Your task to perform on an android device: Search for vegetarian restaurants on Maps Image 0: 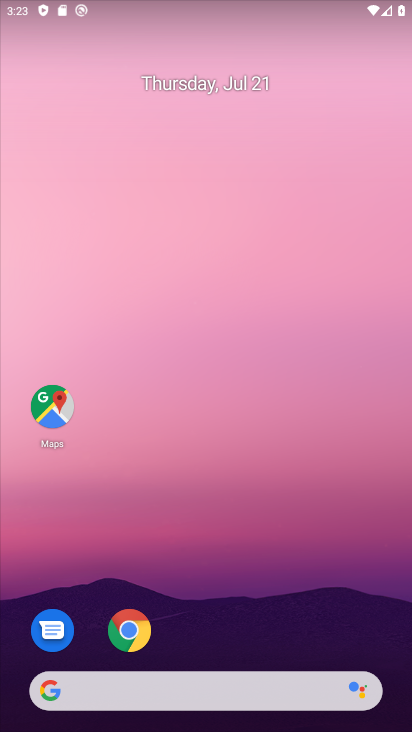
Step 0: click (45, 389)
Your task to perform on an android device: Search for vegetarian restaurants on Maps Image 1: 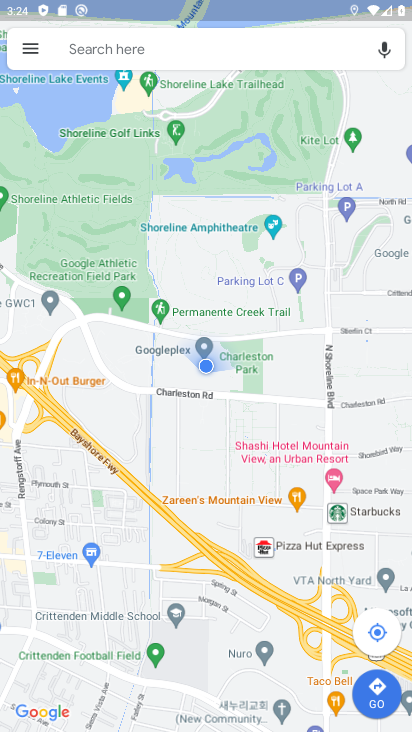
Step 1: click (227, 61)
Your task to perform on an android device: Search for vegetarian restaurants on Maps Image 2: 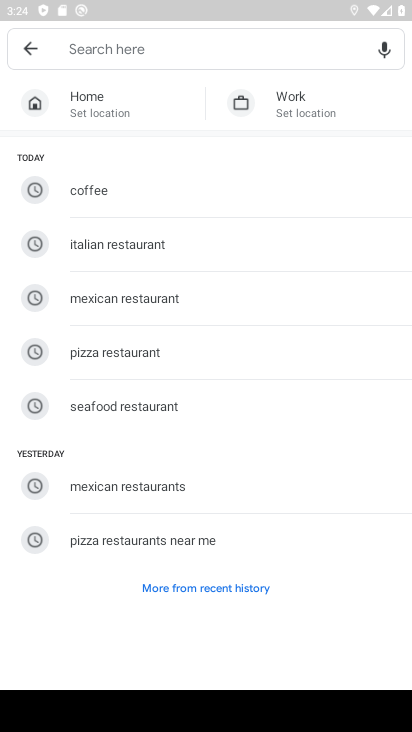
Step 2: type "vegetarian restaurants"
Your task to perform on an android device: Search for vegetarian restaurants on Maps Image 3: 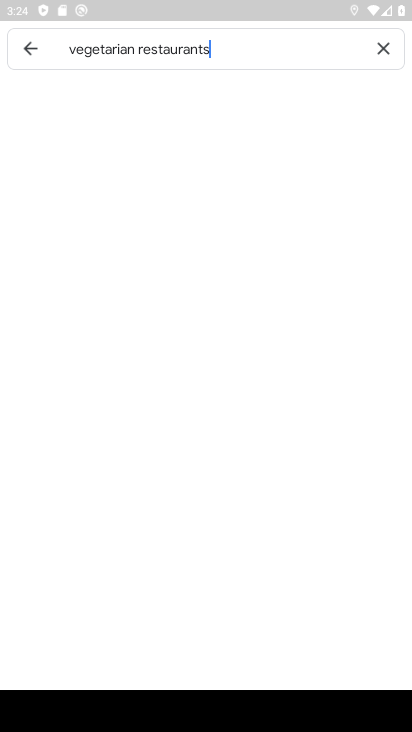
Step 3: type ""
Your task to perform on an android device: Search for vegetarian restaurants on Maps Image 4: 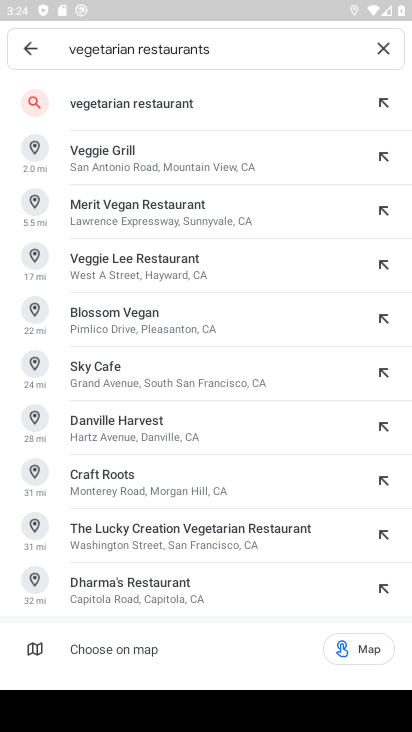
Step 4: click (183, 118)
Your task to perform on an android device: Search for vegetarian restaurants on Maps Image 5: 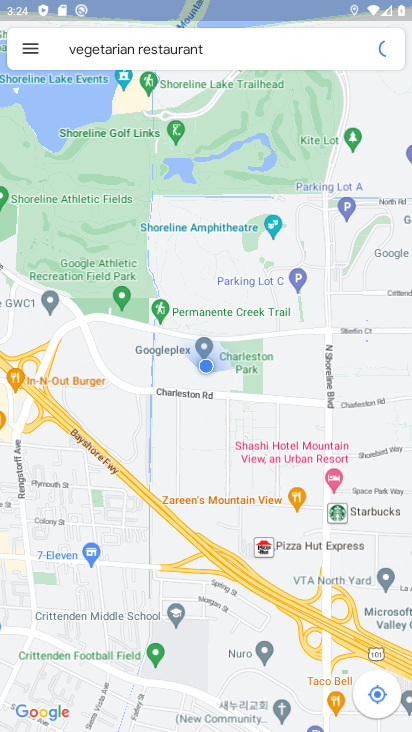
Step 5: task complete